Your task to perform on an android device: turn off translation in the chrome app Image 0: 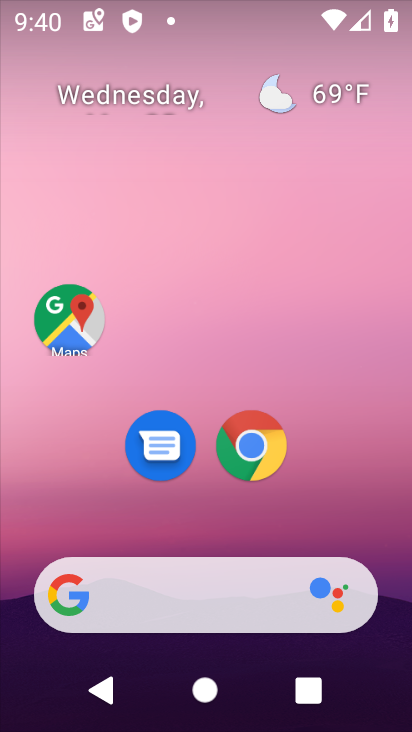
Step 0: press home button
Your task to perform on an android device: turn off translation in the chrome app Image 1: 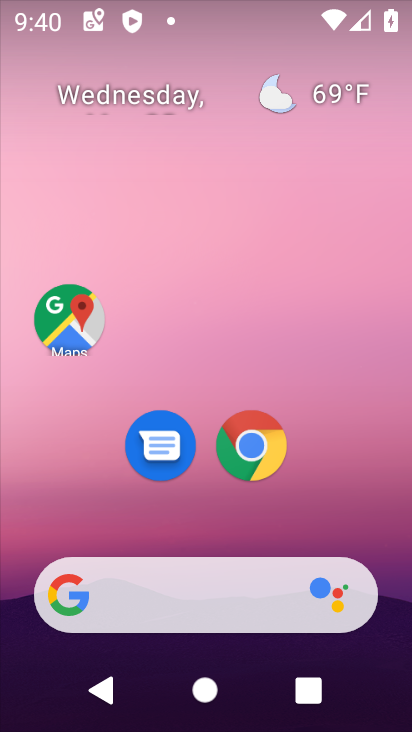
Step 1: click (269, 459)
Your task to perform on an android device: turn off translation in the chrome app Image 2: 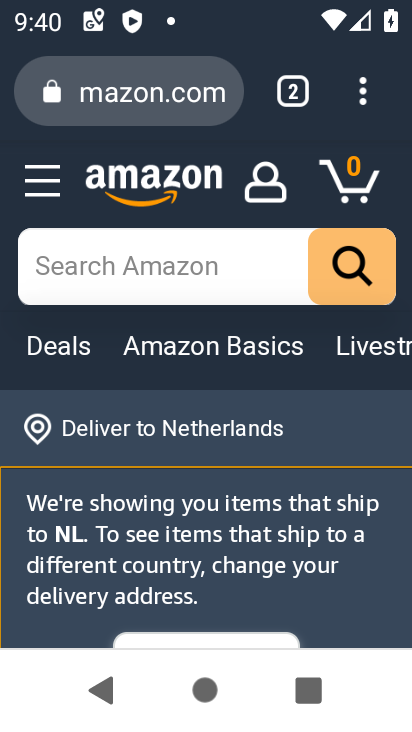
Step 2: drag from (370, 106) to (178, 474)
Your task to perform on an android device: turn off translation in the chrome app Image 3: 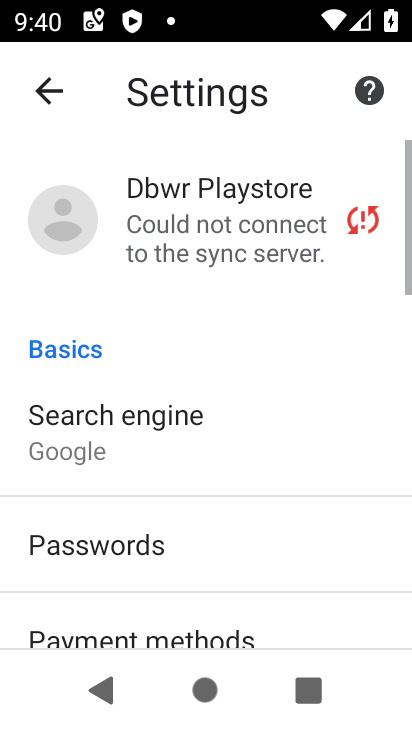
Step 3: drag from (195, 606) to (197, 8)
Your task to perform on an android device: turn off translation in the chrome app Image 4: 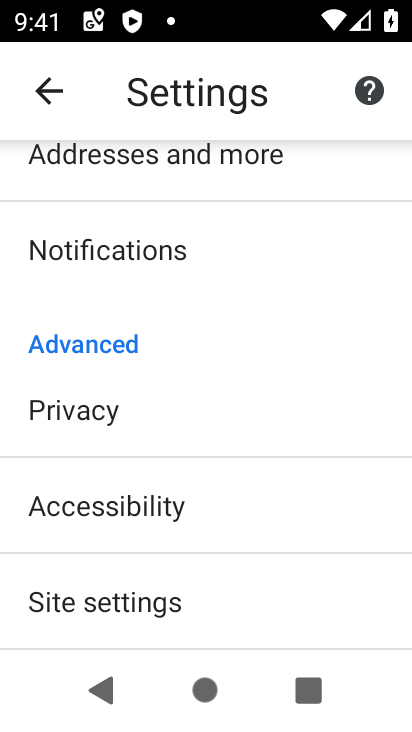
Step 4: drag from (243, 567) to (224, 149)
Your task to perform on an android device: turn off translation in the chrome app Image 5: 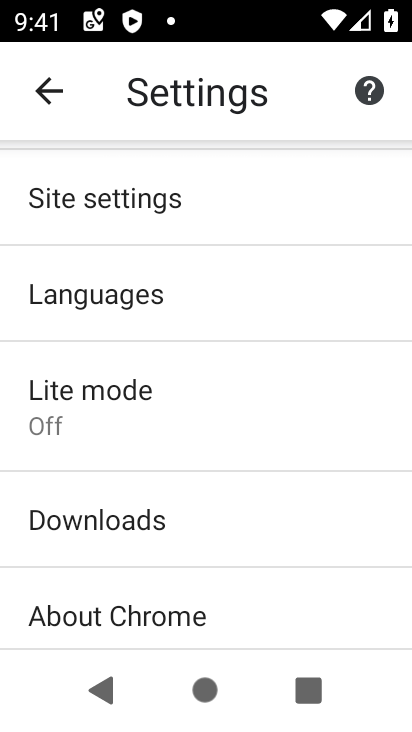
Step 5: click (194, 316)
Your task to perform on an android device: turn off translation in the chrome app Image 6: 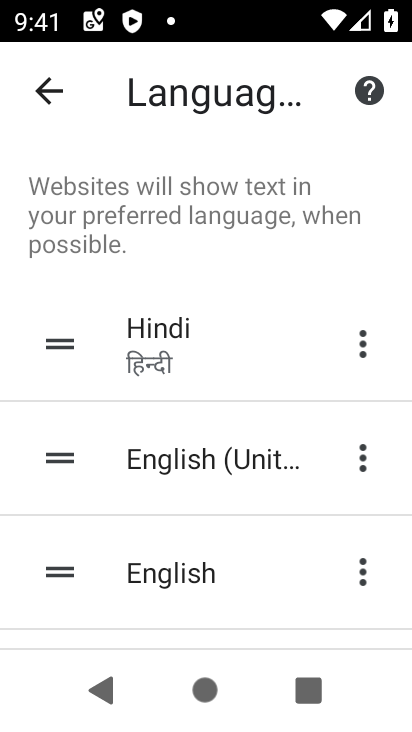
Step 6: task complete